Your task to perform on an android device: Go to eBay Image 0: 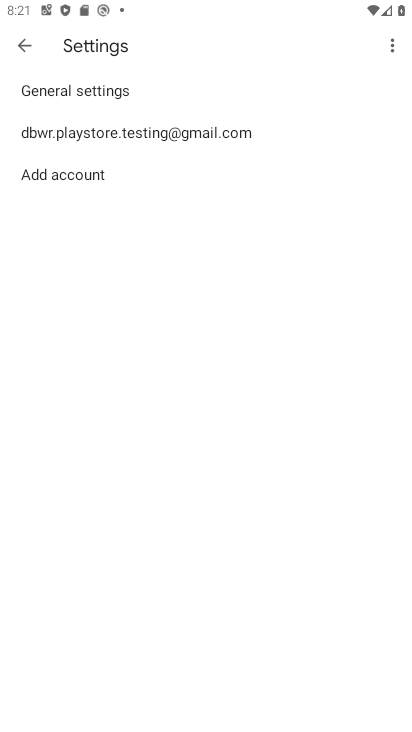
Step 0: press home button
Your task to perform on an android device: Go to eBay Image 1: 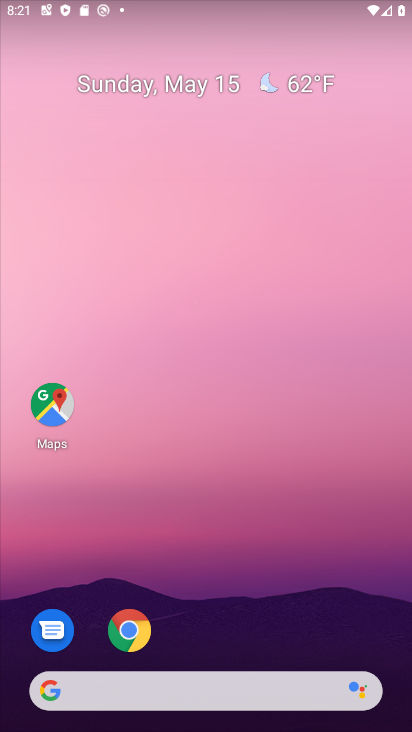
Step 1: click (126, 633)
Your task to perform on an android device: Go to eBay Image 2: 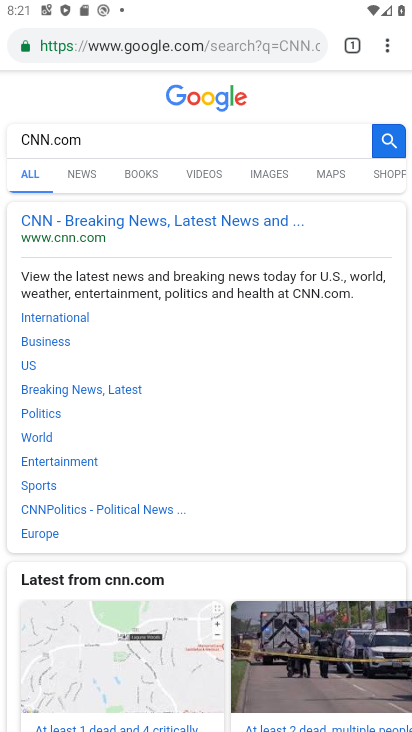
Step 2: click (186, 45)
Your task to perform on an android device: Go to eBay Image 3: 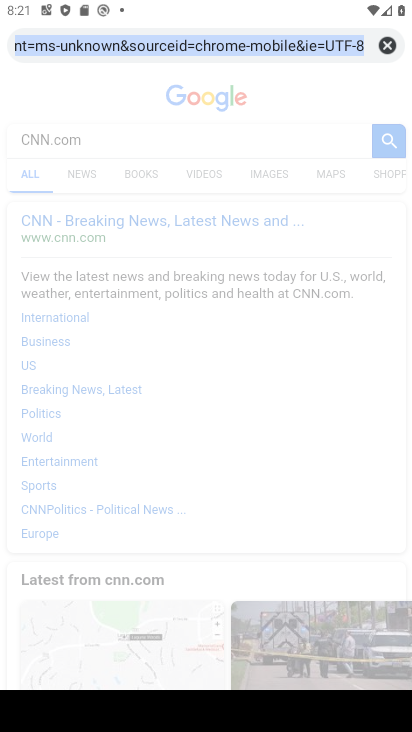
Step 3: type "eBay"
Your task to perform on an android device: Go to eBay Image 4: 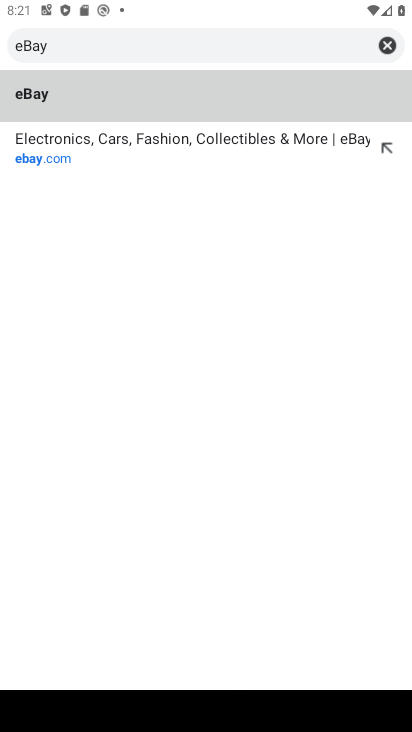
Step 4: click (51, 98)
Your task to perform on an android device: Go to eBay Image 5: 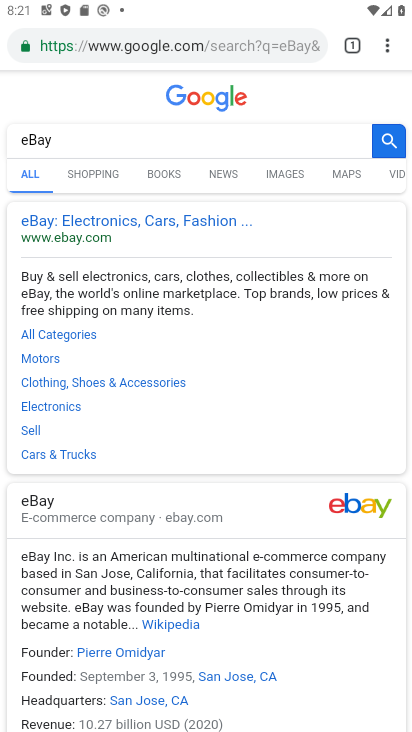
Step 5: task complete